Your task to perform on an android device: Open Android settings Image 0: 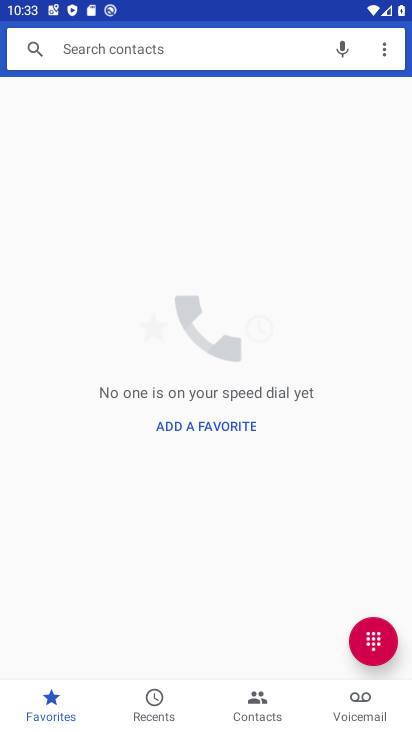
Step 0: press home button
Your task to perform on an android device: Open Android settings Image 1: 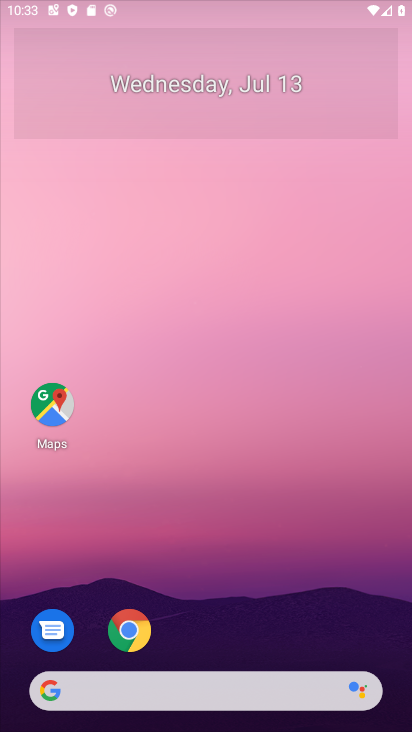
Step 1: drag from (265, 549) to (283, 14)
Your task to perform on an android device: Open Android settings Image 2: 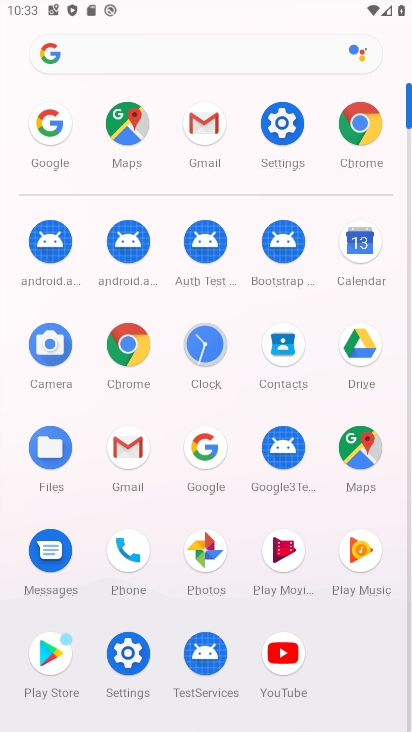
Step 2: click (286, 120)
Your task to perform on an android device: Open Android settings Image 3: 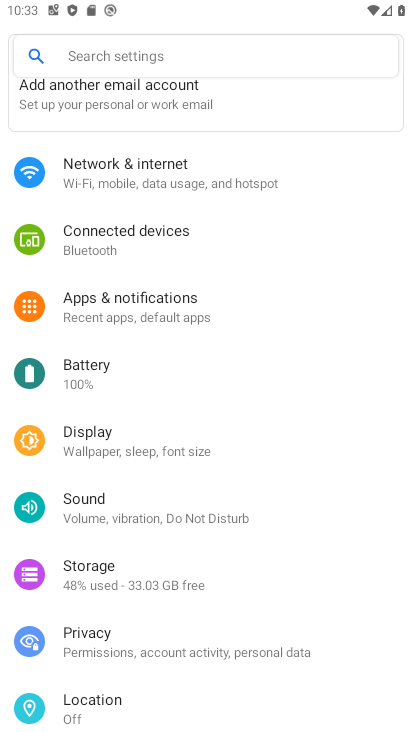
Step 3: task complete